Your task to perform on an android device: turn off wifi Image 0: 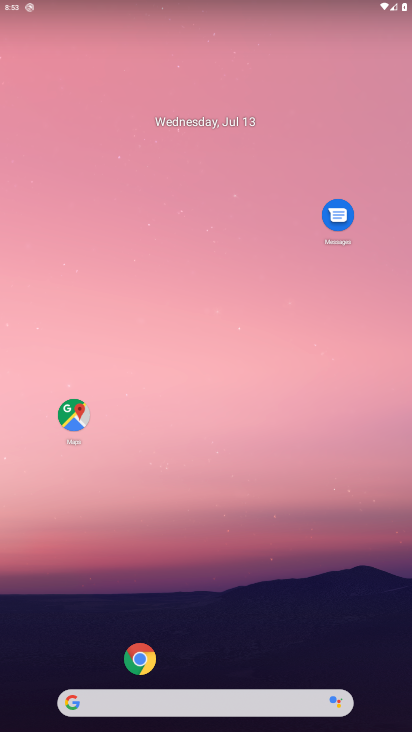
Step 0: drag from (15, 707) to (109, 132)
Your task to perform on an android device: turn off wifi Image 1: 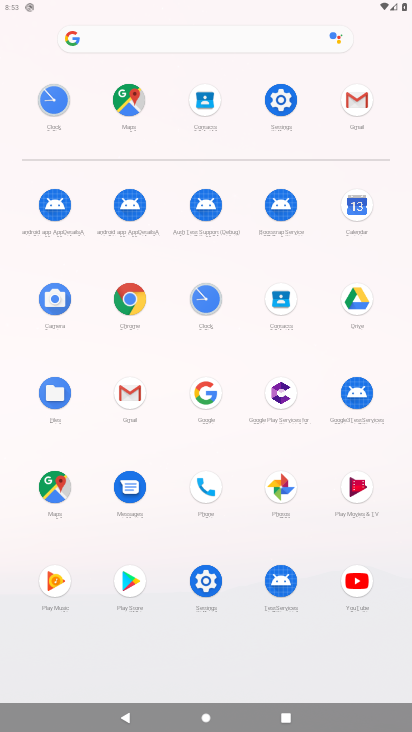
Step 1: click (203, 575)
Your task to perform on an android device: turn off wifi Image 2: 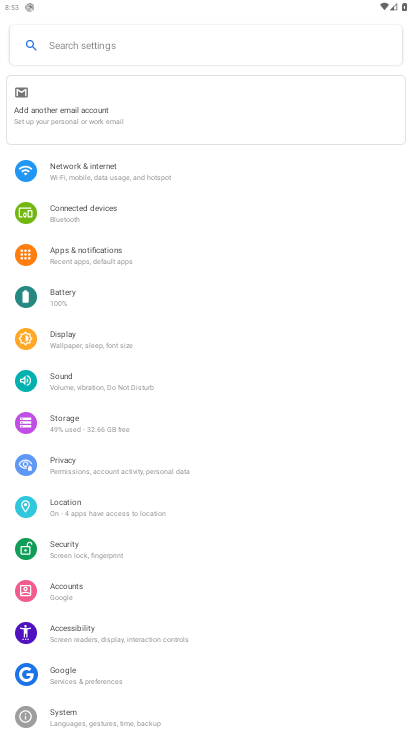
Step 2: click (101, 173)
Your task to perform on an android device: turn off wifi Image 3: 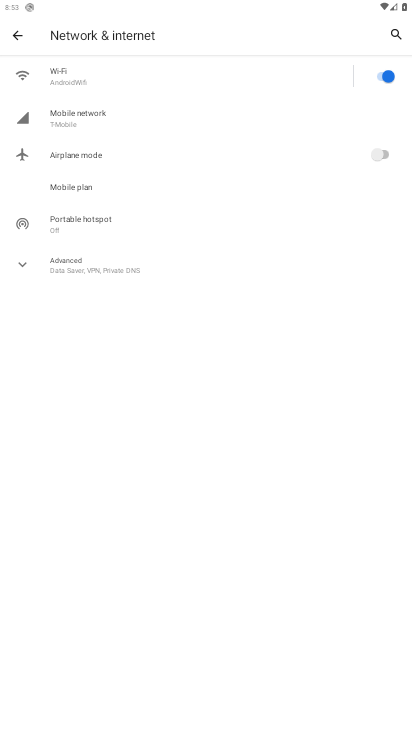
Step 3: task complete